Your task to perform on an android device: Go to calendar. Show me events next week Image 0: 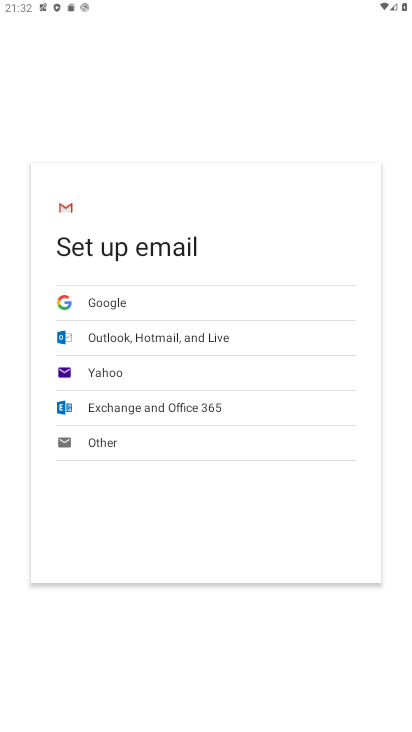
Step 0: press home button
Your task to perform on an android device: Go to calendar. Show me events next week Image 1: 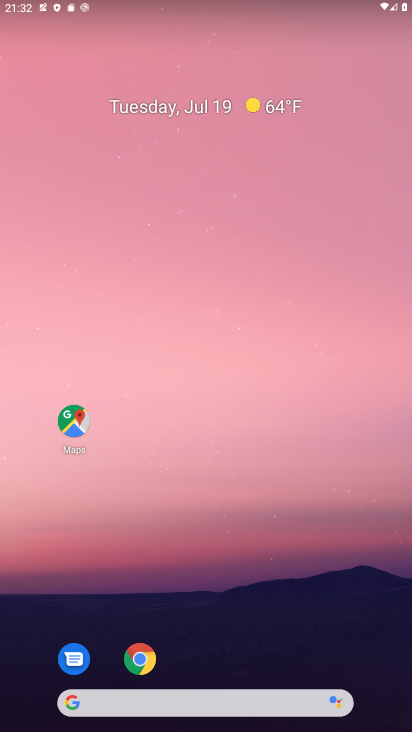
Step 1: click (166, 117)
Your task to perform on an android device: Go to calendar. Show me events next week Image 2: 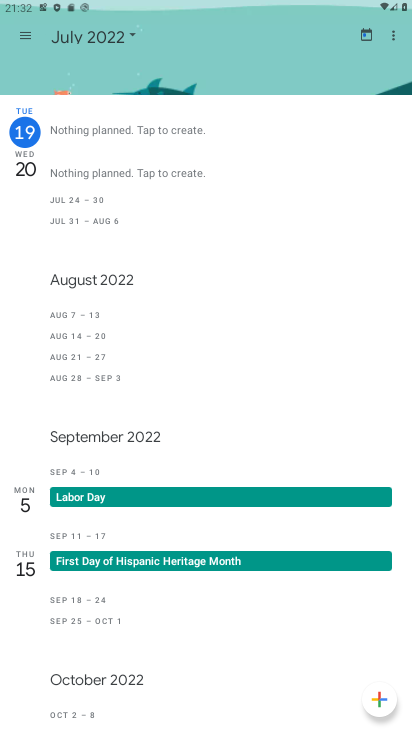
Step 2: click (36, 45)
Your task to perform on an android device: Go to calendar. Show me events next week Image 3: 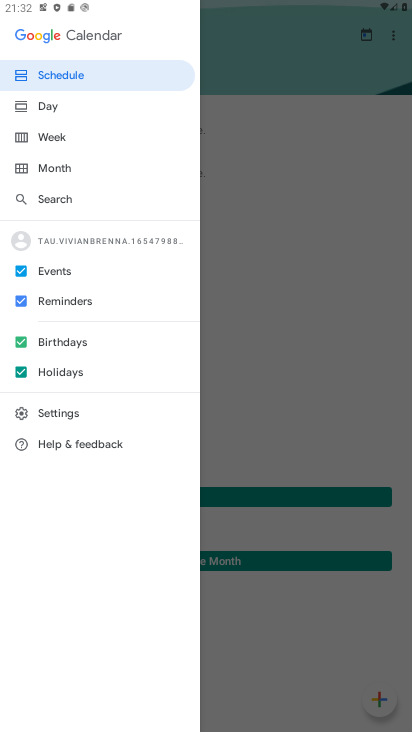
Step 3: click (21, 303)
Your task to perform on an android device: Go to calendar. Show me events next week Image 4: 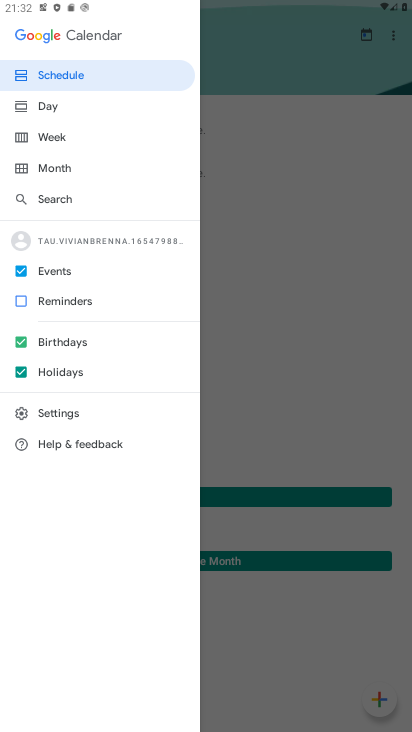
Step 4: click (27, 344)
Your task to perform on an android device: Go to calendar. Show me events next week Image 5: 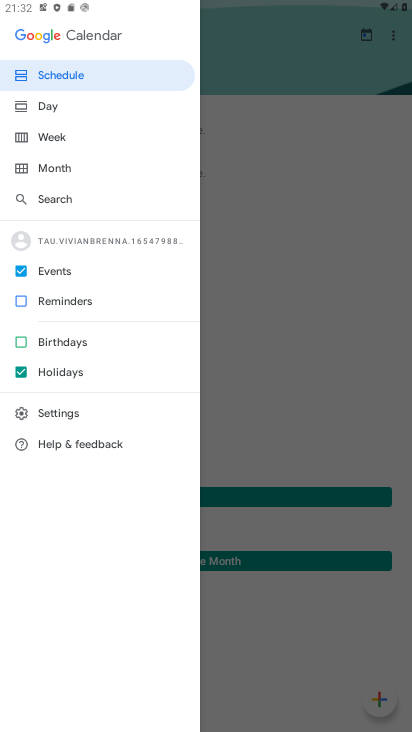
Step 5: click (21, 377)
Your task to perform on an android device: Go to calendar. Show me events next week Image 6: 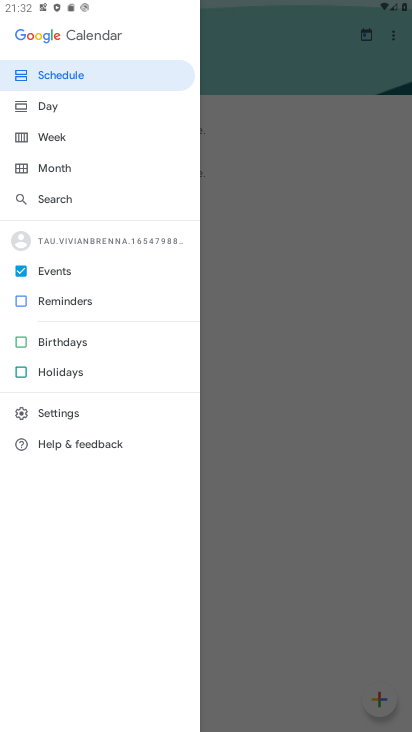
Step 6: click (59, 139)
Your task to perform on an android device: Go to calendar. Show me events next week Image 7: 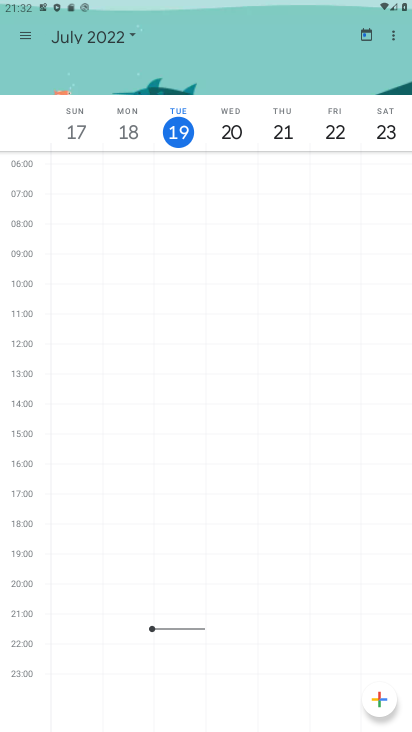
Step 7: task complete